Your task to perform on an android device: open app "Mercado Libre" Image 0: 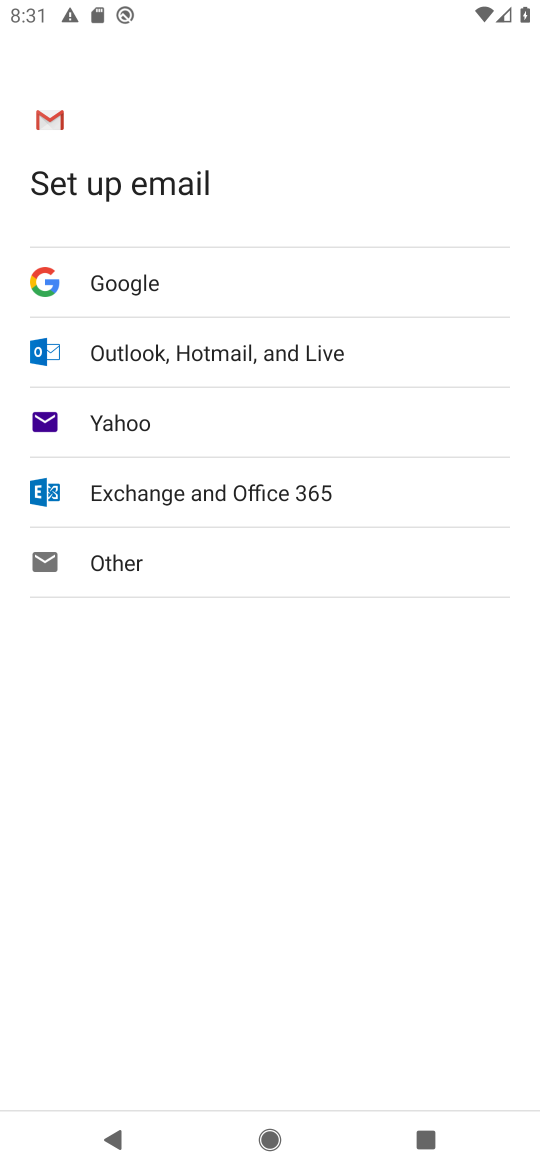
Step 0: press home button
Your task to perform on an android device: open app "Mercado Libre" Image 1: 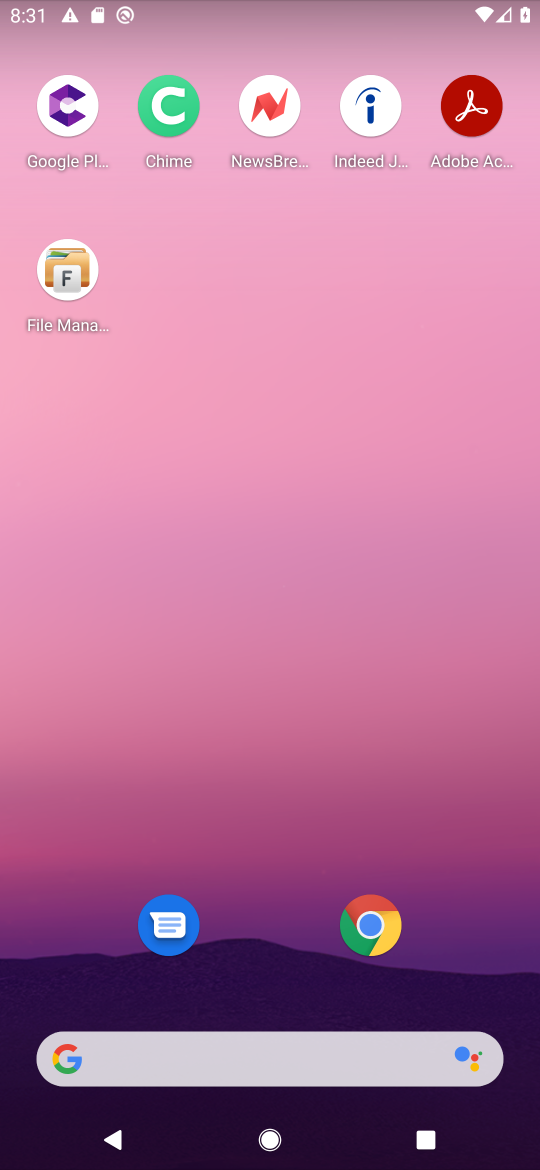
Step 1: drag from (297, 899) to (239, 175)
Your task to perform on an android device: open app "Mercado Libre" Image 2: 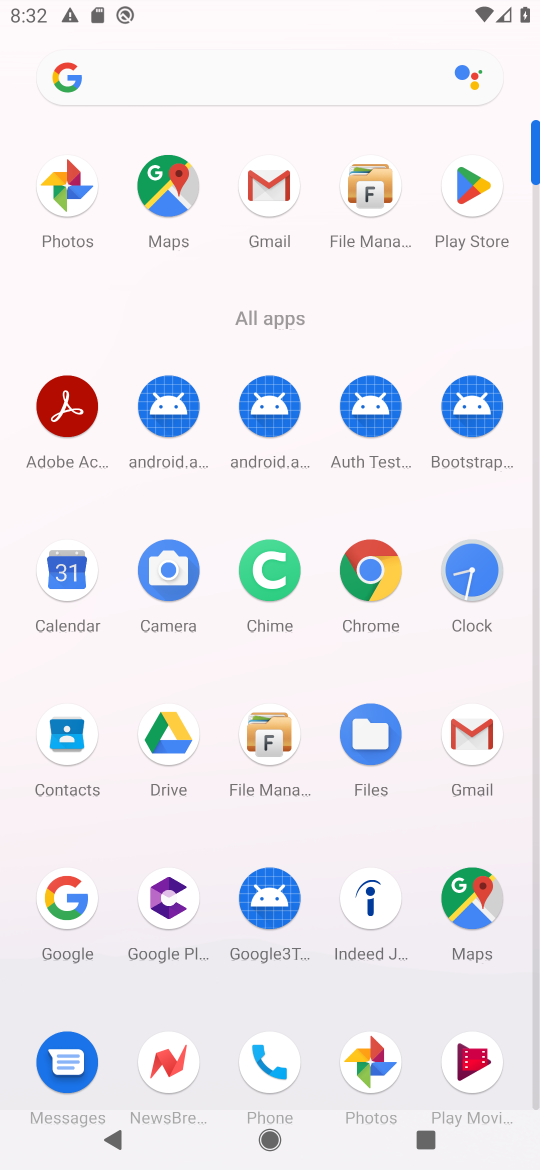
Step 2: click (468, 180)
Your task to perform on an android device: open app "Mercado Libre" Image 3: 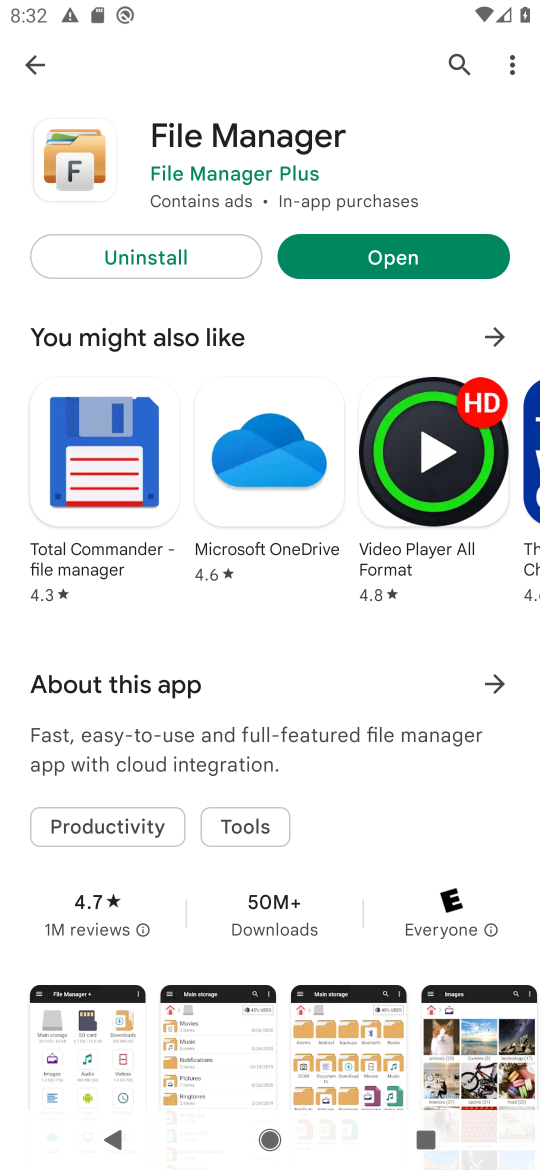
Step 3: click (462, 67)
Your task to perform on an android device: open app "Mercado Libre" Image 4: 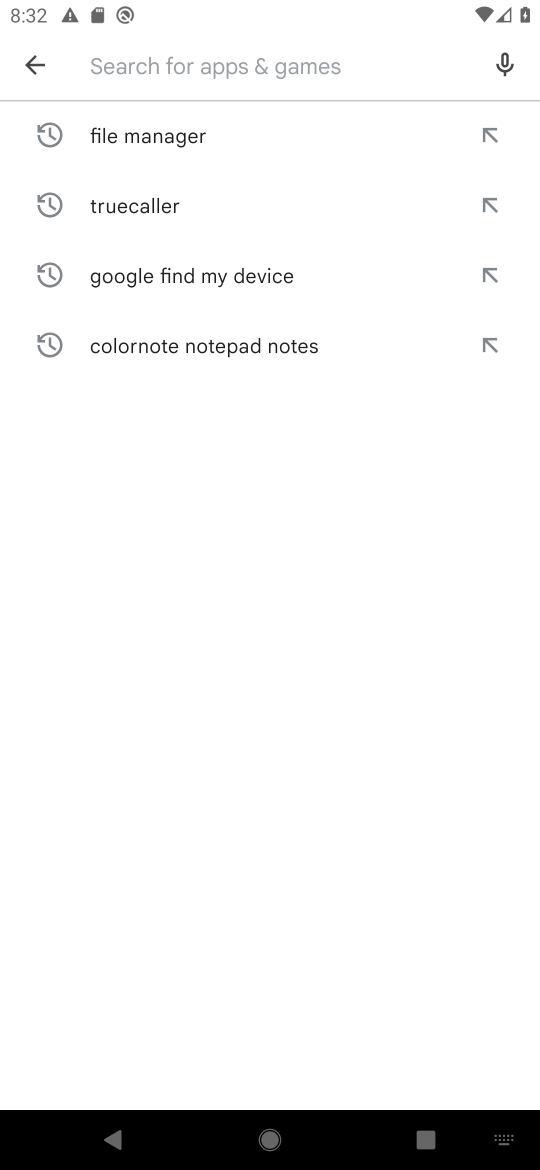
Step 4: type "mercado libre"
Your task to perform on an android device: open app "Mercado Libre" Image 5: 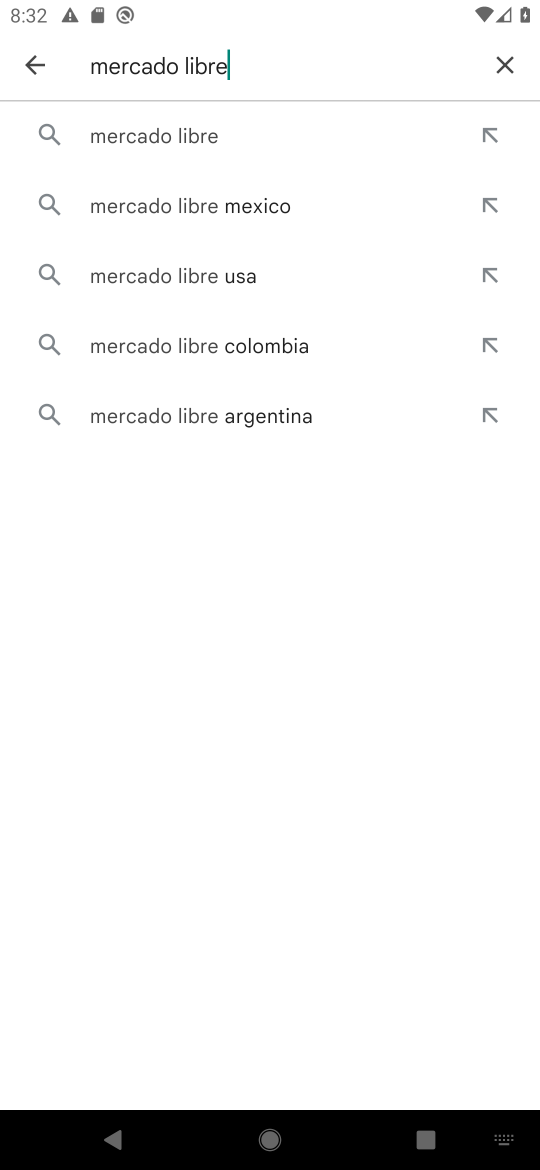
Step 5: click (243, 131)
Your task to perform on an android device: open app "Mercado Libre" Image 6: 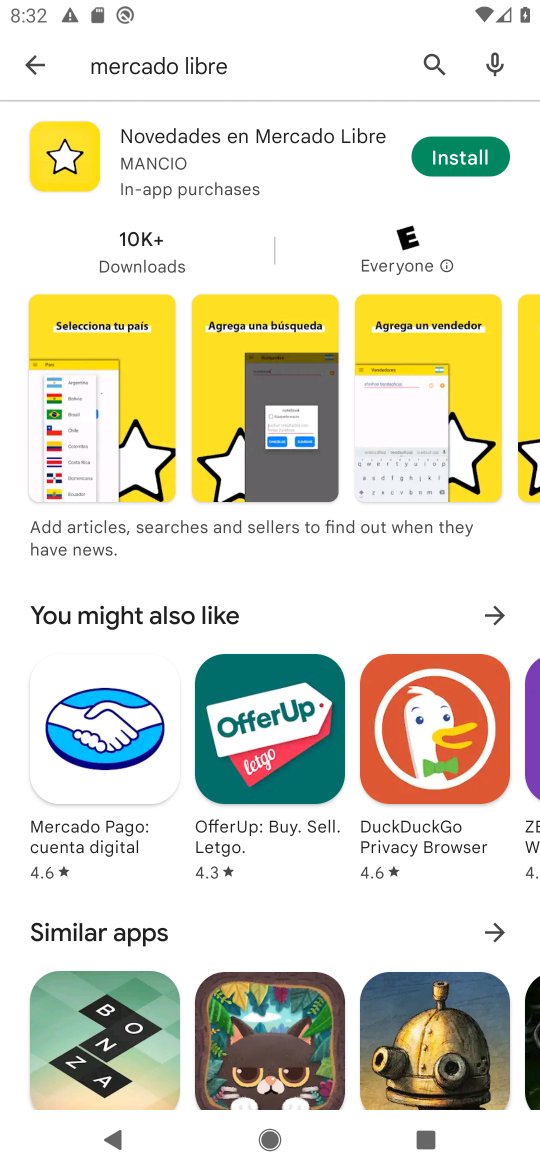
Step 6: click (175, 135)
Your task to perform on an android device: open app "Mercado Libre" Image 7: 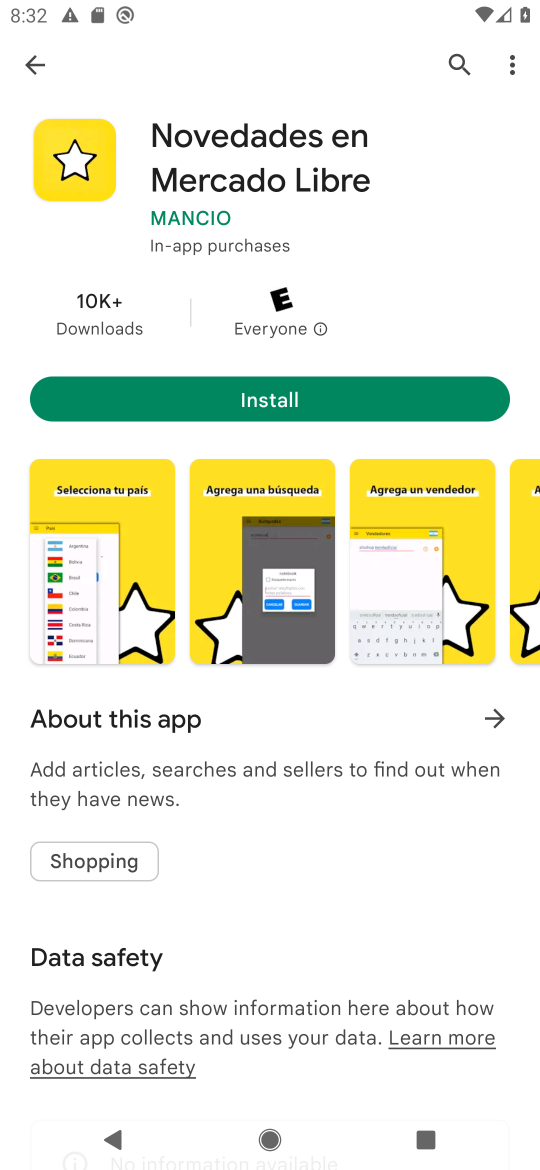
Step 7: task complete